Your task to perform on an android device: Do I have any events this weekend? Image 0: 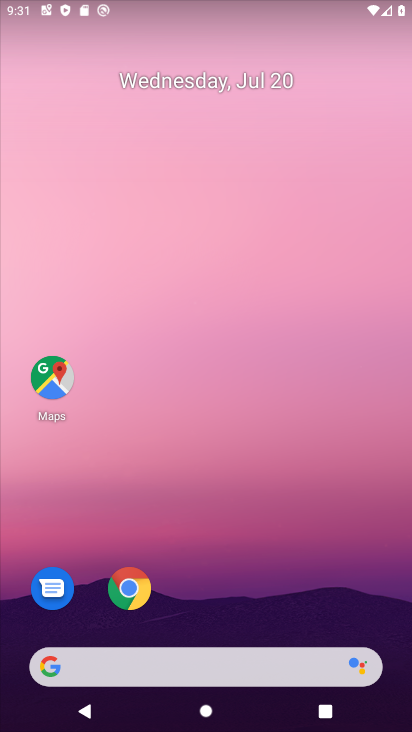
Step 0: press home button
Your task to perform on an android device: Do I have any events this weekend? Image 1: 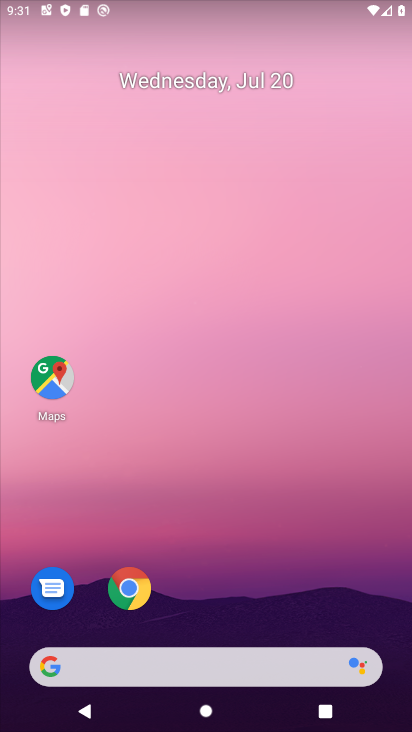
Step 1: drag from (292, 534) to (344, 206)
Your task to perform on an android device: Do I have any events this weekend? Image 2: 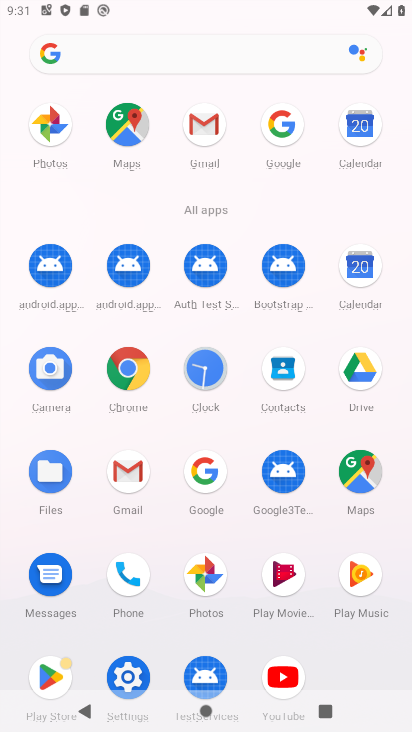
Step 2: click (357, 116)
Your task to perform on an android device: Do I have any events this weekend? Image 3: 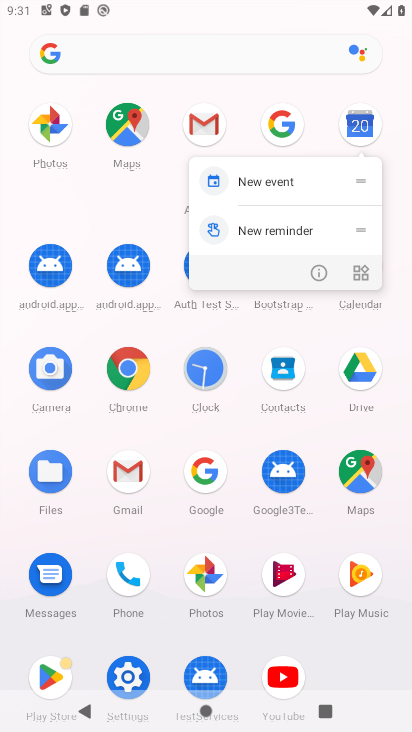
Step 3: click (366, 128)
Your task to perform on an android device: Do I have any events this weekend? Image 4: 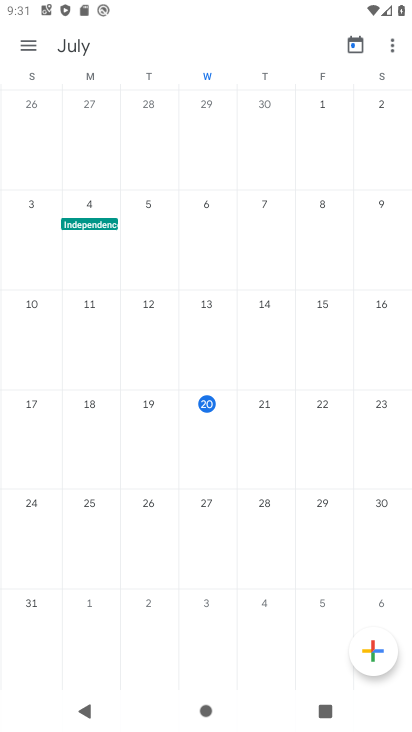
Step 4: click (29, 44)
Your task to perform on an android device: Do I have any events this weekend? Image 5: 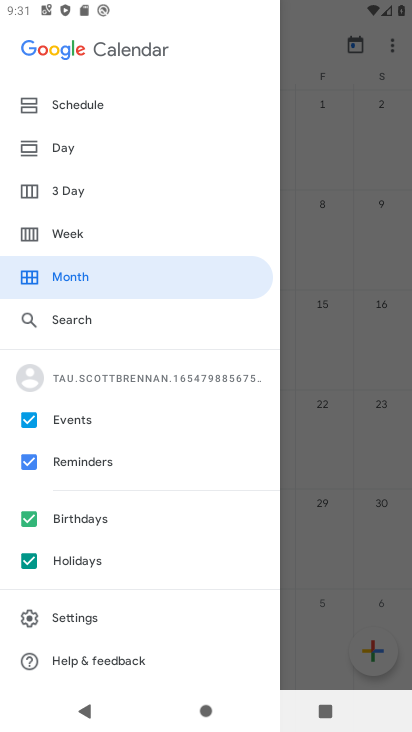
Step 5: click (81, 231)
Your task to perform on an android device: Do I have any events this weekend? Image 6: 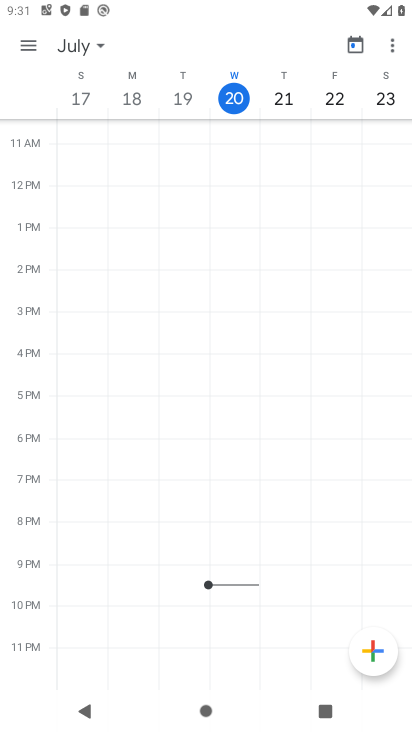
Step 6: task complete